Your task to perform on an android device: change the clock display to show seconds Image 0: 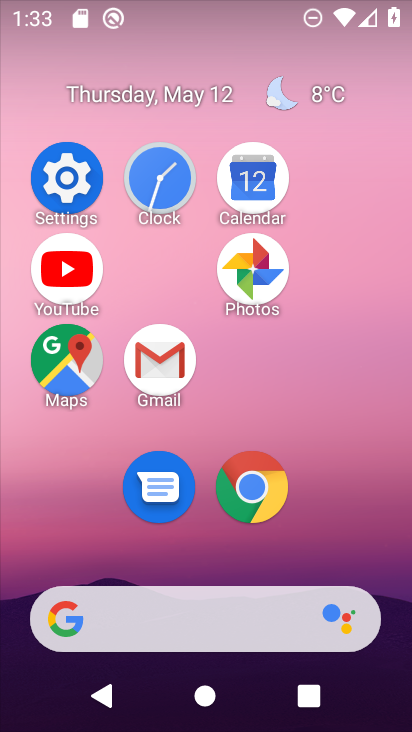
Step 0: click (156, 184)
Your task to perform on an android device: change the clock display to show seconds Image 1: 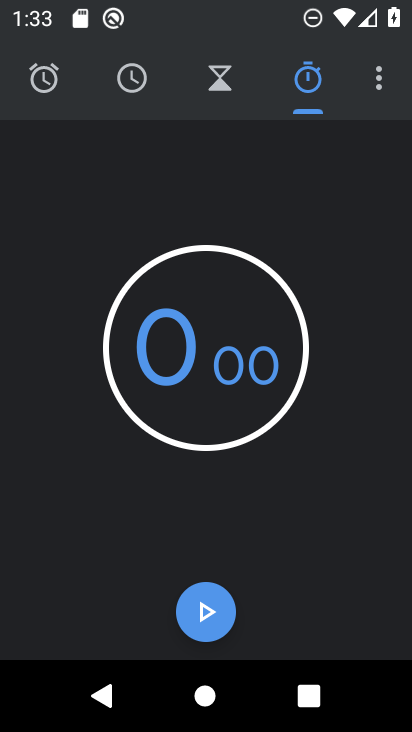
Step 1: click (380, 91)
Your task to perform on an android device: change the clock display to show seconds Image 2: 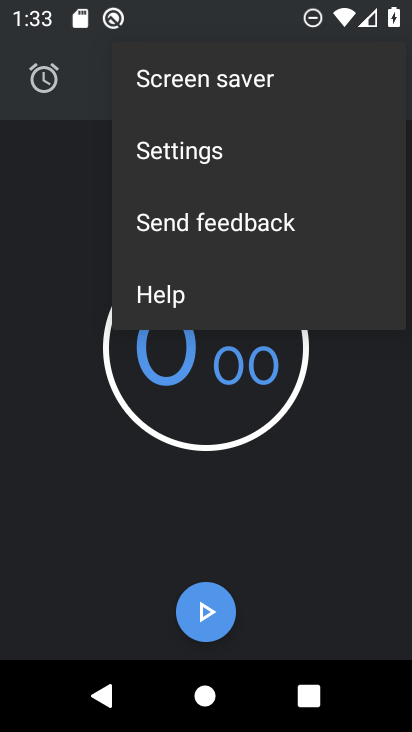
Step 2: click (289, 128)
Your task to perform on an android device: change the clock display to show seconds Image 3: 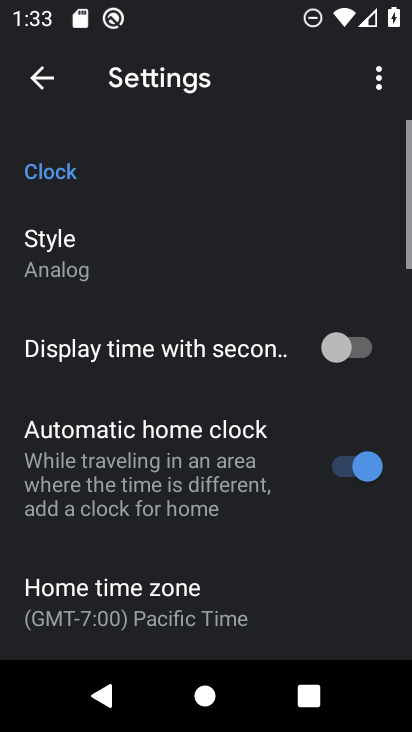
Step 3: click (330, 350)
Your task to perform on an android device: change the clock display to show seconds Image 4: 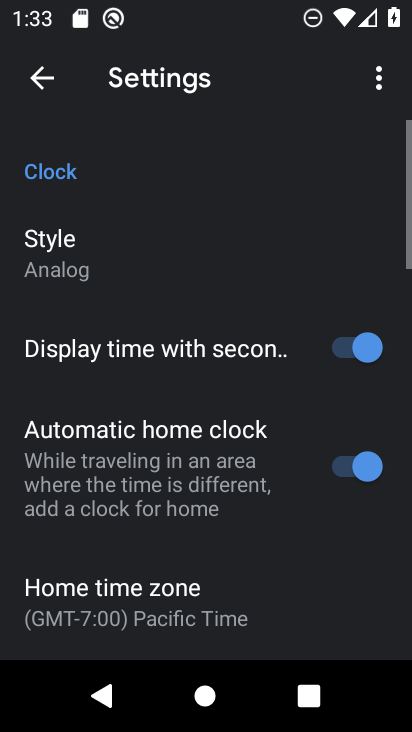
Step 4: task complete